Your task to perform on an android device: Play the last video I watched on Youtube Image 0: 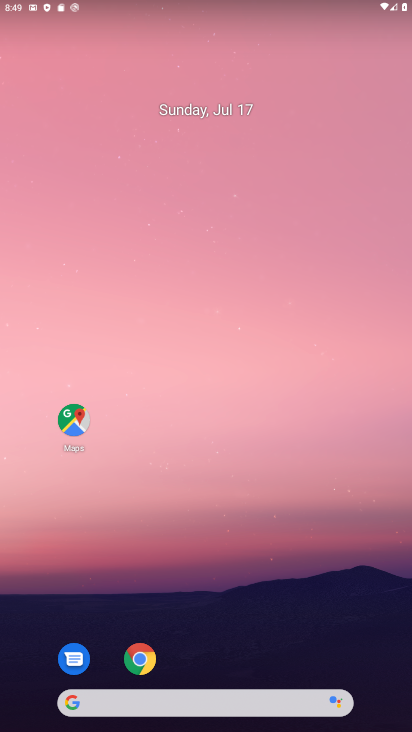
Step 0: drag from (275, 678) to (340, 60)
Your task to perform on an android device: Play the last video I watched on Youtube Image 1: 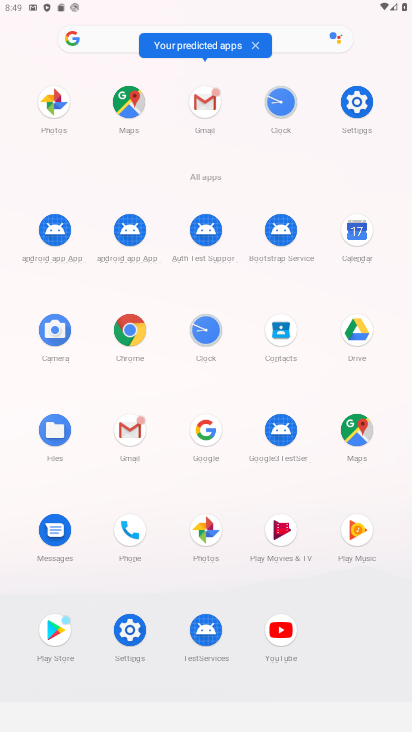
Step 1: click (272, 644)
Your task to perform on an android device: Play the last video I watched on Youtube Image 2: 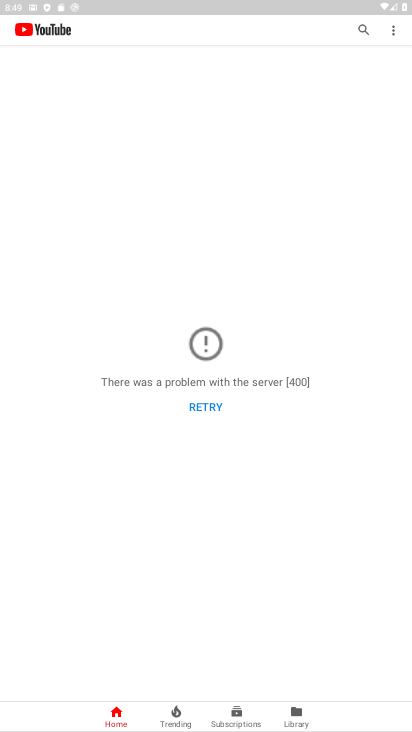
Step 2: click (222, 403)
Your task to perform on an android device: Play the last video I watched on Youtube Image 3: 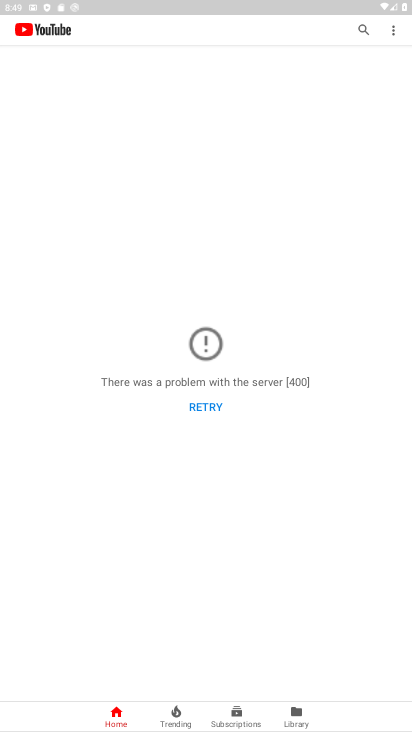
Step 3: click (221, 403)
Your task to perform on an android device: Play the last video I watched on Youtube Image 4: 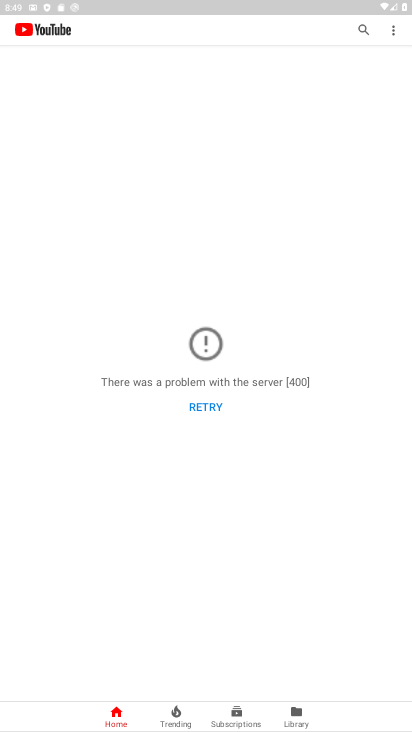
Step 4: task complete